Your task to perform on an android device: open chrome privacy settings Image 0: 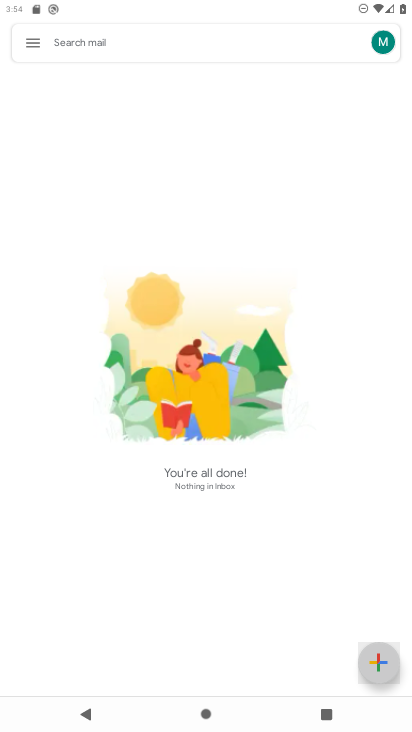
Step 0: press home button
Your task to perform on an android device: open chrome privacy settings Image 1: 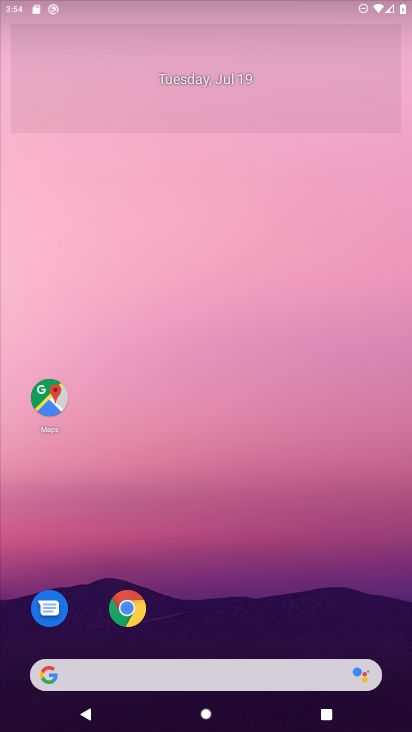
Step 1: drag from (246, 587) to (191, 23)
Your task to perform on an android device: open chrome privacy settings Image 2: 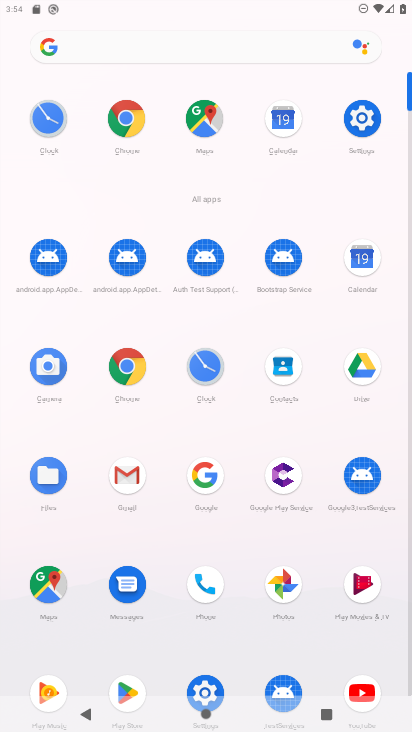
Step 2: click (118, 125)
Your task to perform on an android device: open chrome privacy settings Image 3: 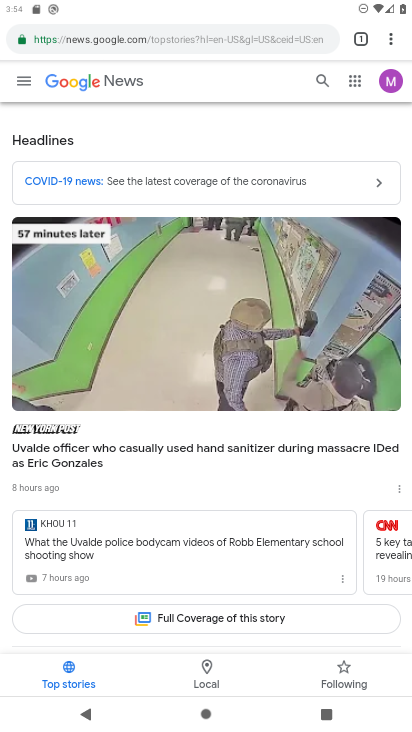
Step 3: drag from (389, 37) to (255, 465)
Your task to perform on an android device: open chrome privacy settings Image 4: 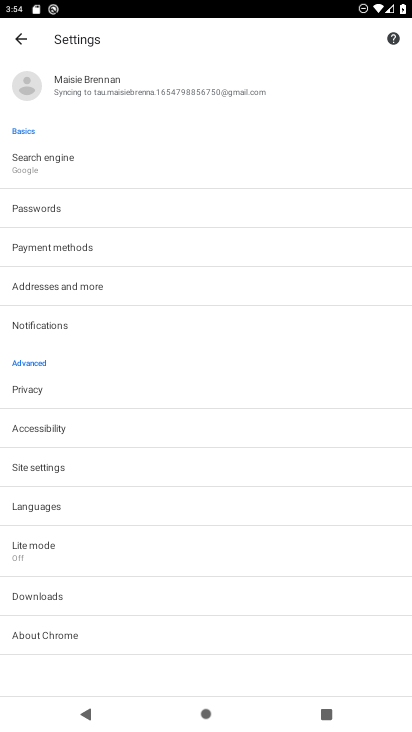
Step 4: click (16, 380)
Your task to perform on an android device: open chrome privacy settings Image 5: 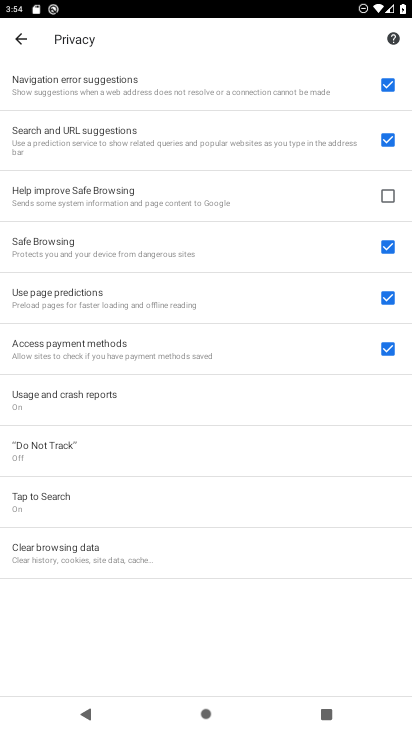
Step 5: task complete